Your task to perform on an android device: Is it going to rain this weekend? Image 0: 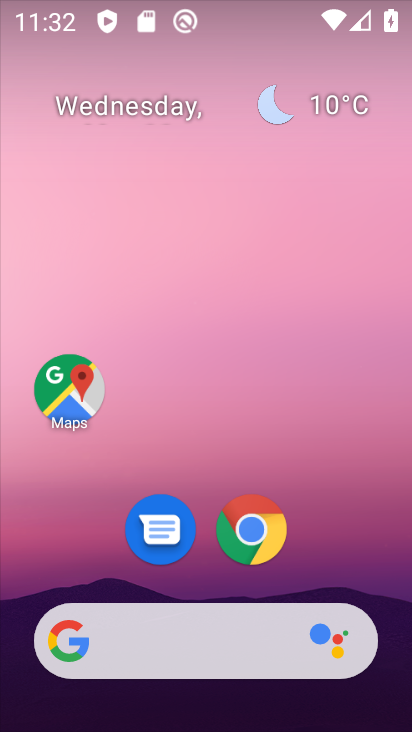
Step 0: drag from (102, 532) to (208, 152)
Your task to perform on an android device: Is it going to rain this weekend? Image 1: 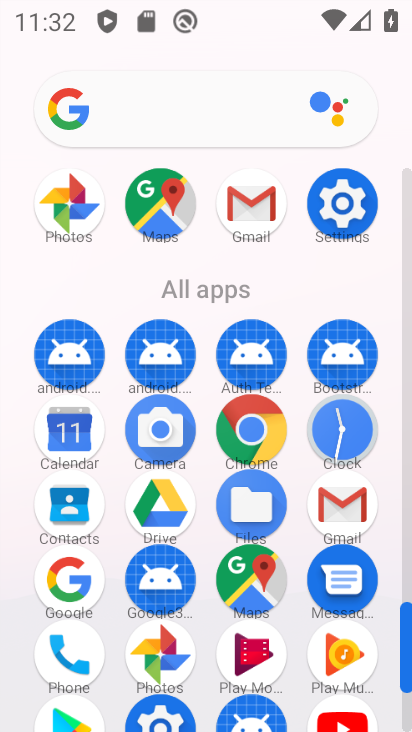
Step 1: click (42, 590)
Your task to perform on an android device: Is it going to rain this weekend? Image 2: 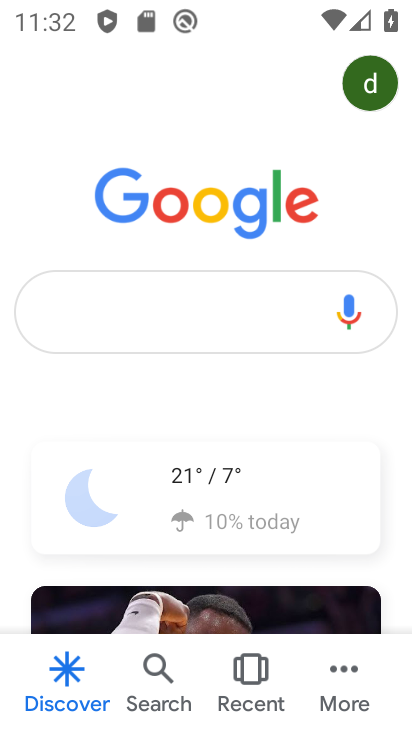
Step 2: click (252, 477)
Your task to perform on an android device: Is it going to rain this weekend? Image 3: 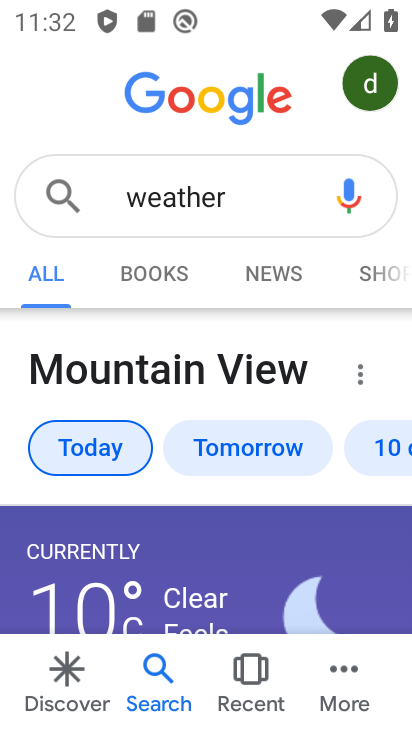
Step 3: drag from (257, 581) to (334, 305)
Your task to perform on an android device: Is it going to rain this weekend? Image 4: 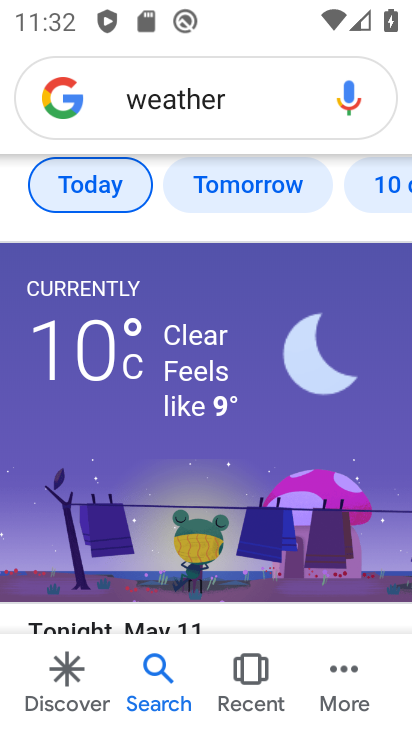
Step 4: drag from (234, 545) to (361, 275)
Your task to perform on an android device: Is it going to rain this weekend? Image 5: 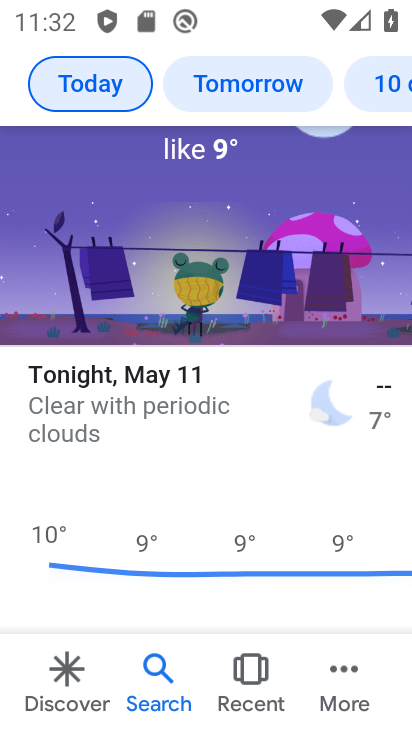
Step 5: drag from (169, 556) to (308, 167)
Your task to perform on an android device: Is it going to rain this weekend? Image 6: 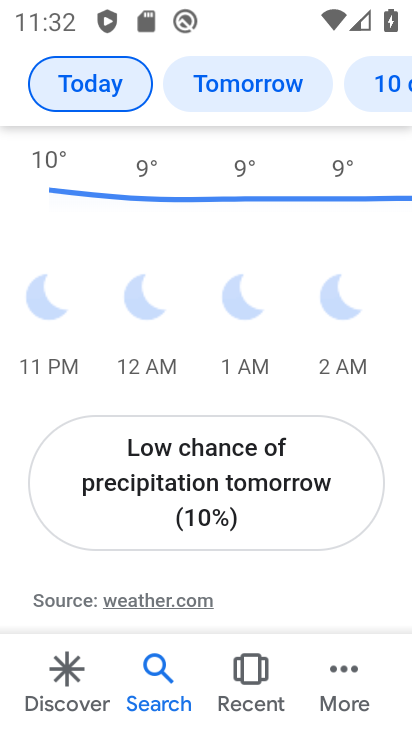
Step 6: drag from (269, 545) to (353, 169)
Your task to perform on an android device: Is it going to rain this weekend? Image 7: 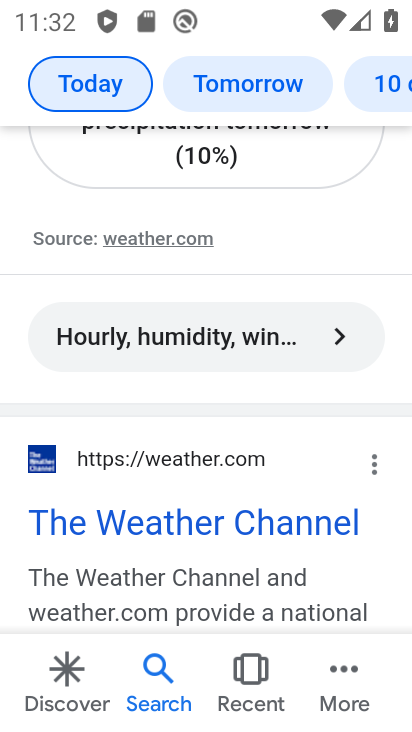
Step 7: click (292, 527)
Your task to perform on an android device: Is it going to rain this weekend? Image 8: 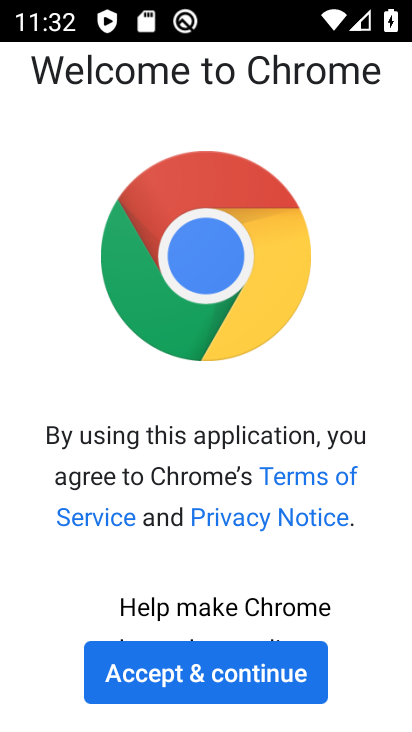
Step 8: click (245, 666)
Your task to perform on an android device: Is it going to rain this weekend? Image 9: 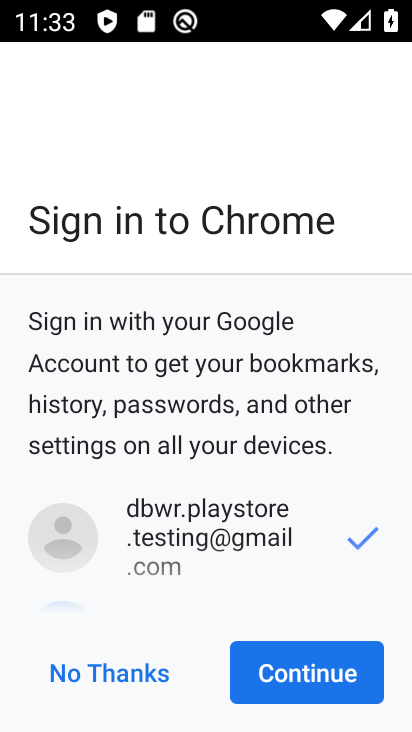
Step 9: click (269, 667)
Your task to perform on an android device: Is it going to rain this weekend? Image 10: 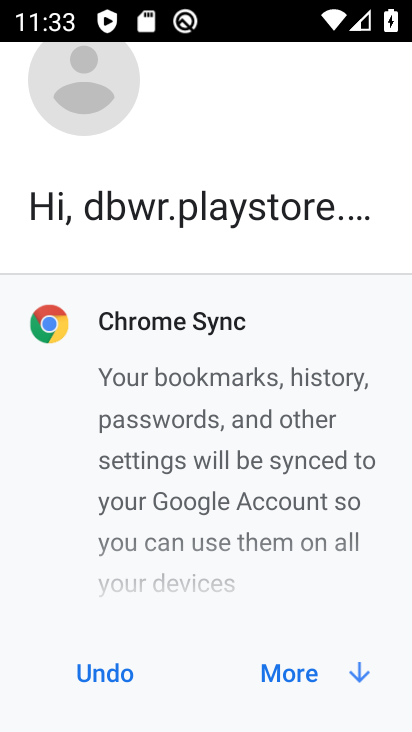
Step 10: click (305, 657)
Your task to perform on an android device: Is it going to rain this weekend? Image 11: 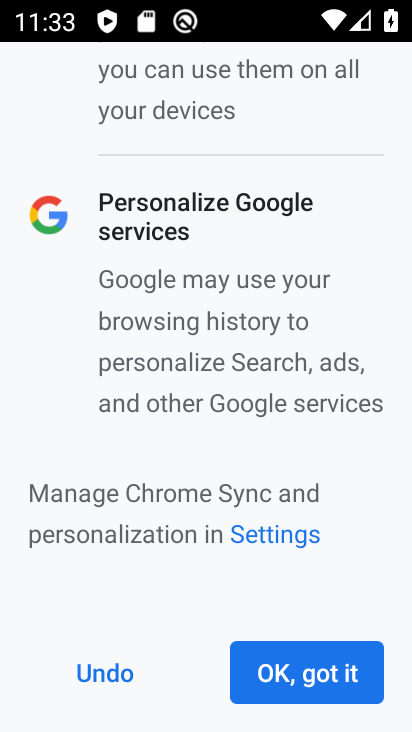
Step 11: click (305, 664)
Your task to perform on an android device: Is it going to rain this weekend? Image 12: 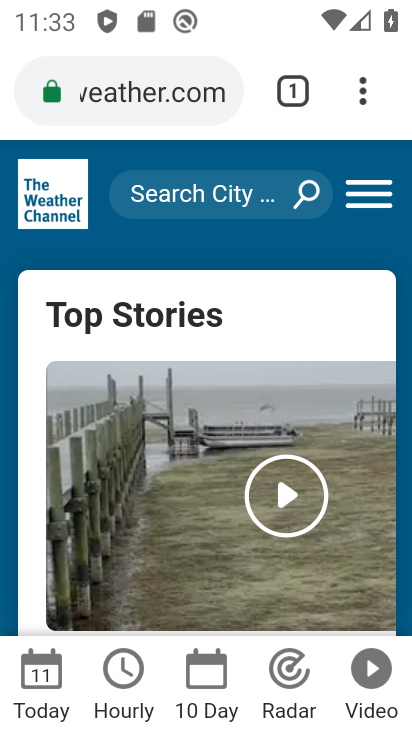
Step 12: click (208, 676)
Your task to perform on an android device: Is it going to rain this weekend? Image 13: 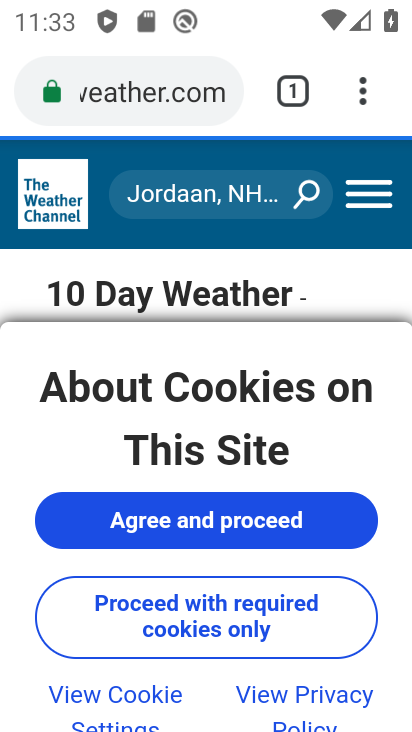
Step 13: click (294, 519)
Your task to perform on an android device: Is it going to rain this weekend? Image 14: 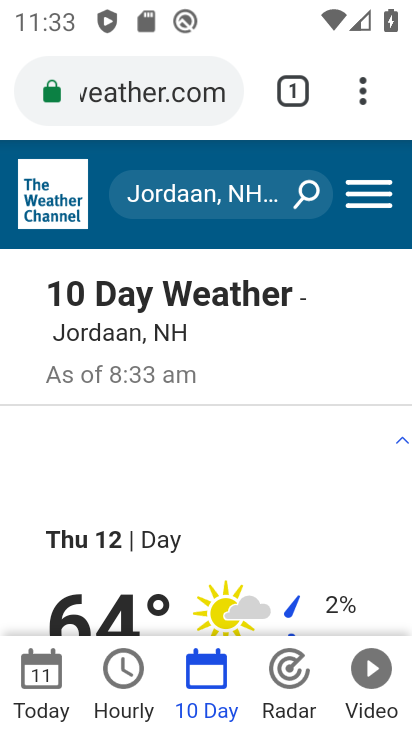
Step 14: task complete